Your task to perform on an android device: Set the phone to "Do not disturb". Image 0: 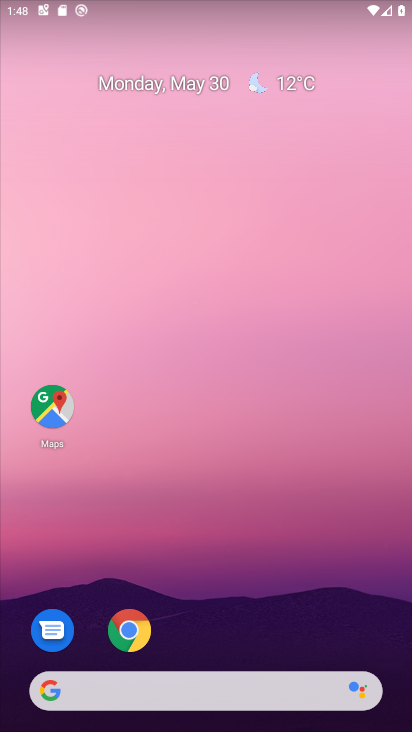
Step 0: drag from (239, 693) to (211, 281)
Your task to perform on an android device: Set the phone to "Do not disturb". Image 1: 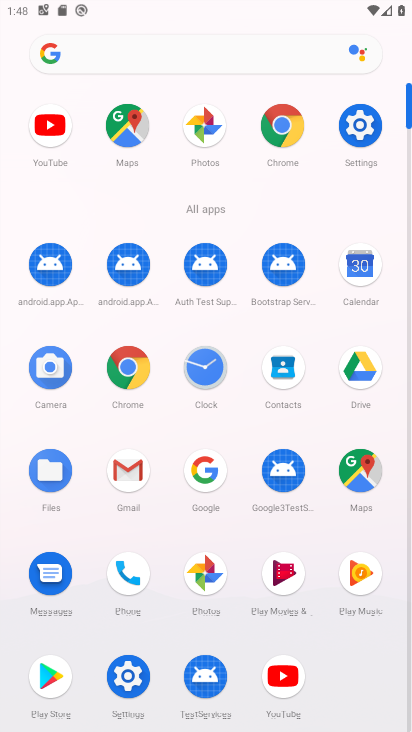
Step 1: click (372, 115)
Your task to perform on an android device: Set the phone to "Do not disturb". Image 2: 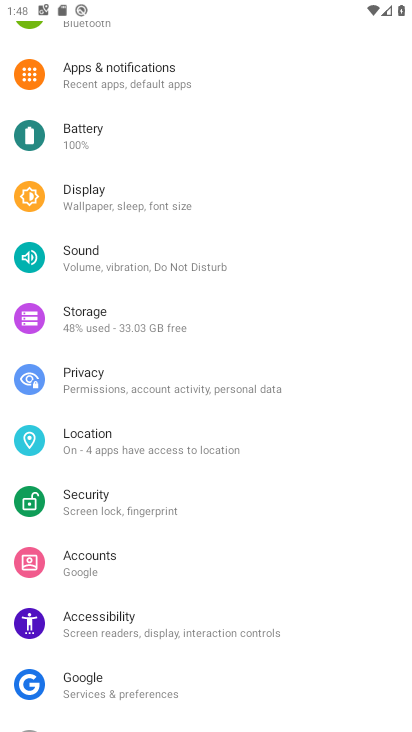
Step 2: click (124, 259)
Your task to perform on an android device: Set the phone to "Do not disturb". Image 3: 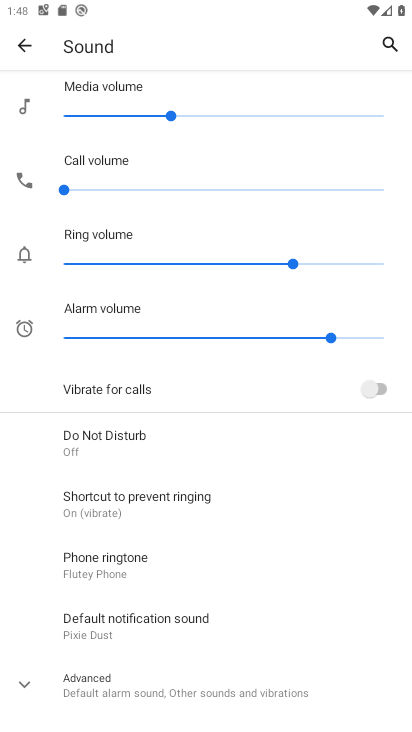
Step 3: click (134, 449)
Your task to perform on an android device: Set the phone to "Do not disturb". Image 4: 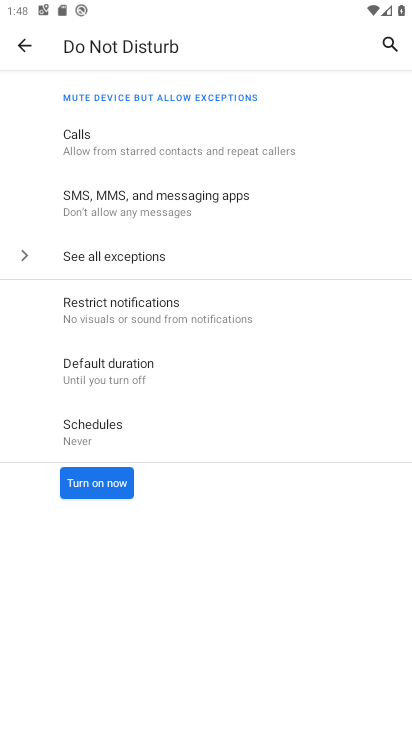
Step 4: click (91, 489)
Your task to perform on an android device: Set the phone to "Do not disturb". Image 5: 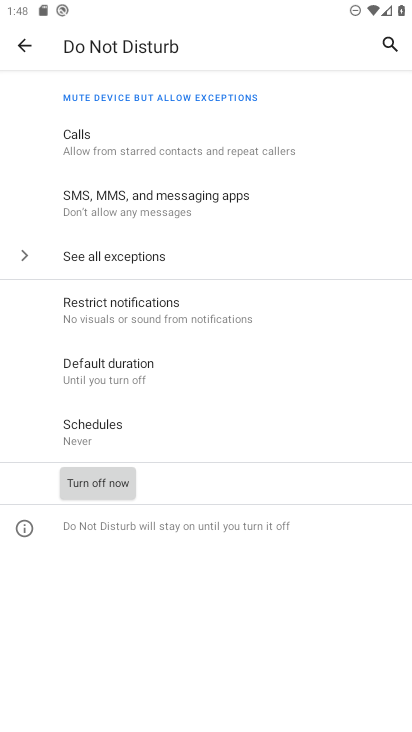
Step 5: task complete